Your task to perform on an android device: Go to ESPN.com Image 0: 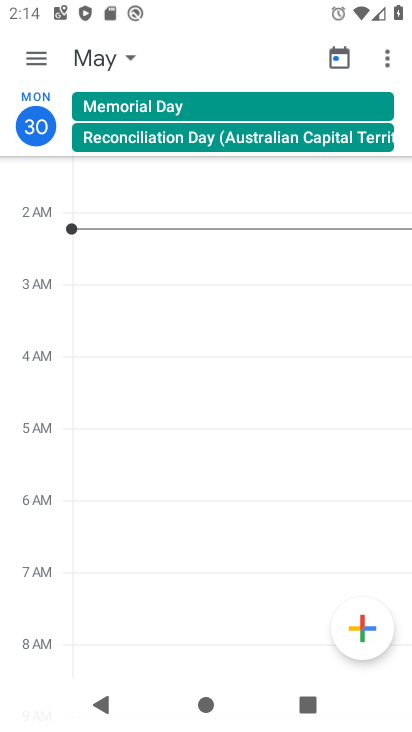
Step 0: press home button
Your task to perform on an android device: Go to ESPN.com Image 1: 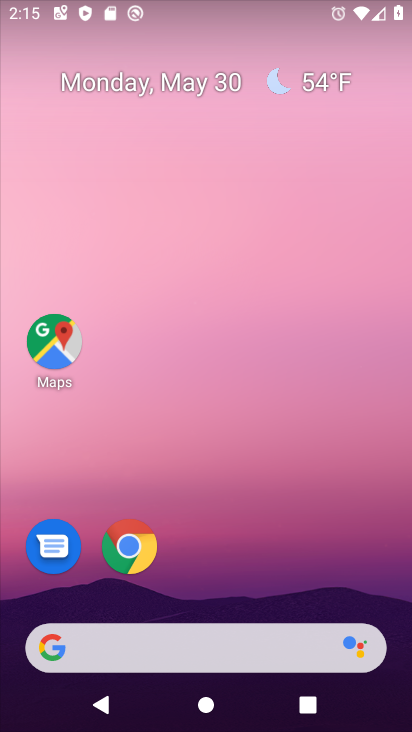
Step 1: click (143, 546)
Your task to perform on an android device: Go to ESPN.com Image 2: 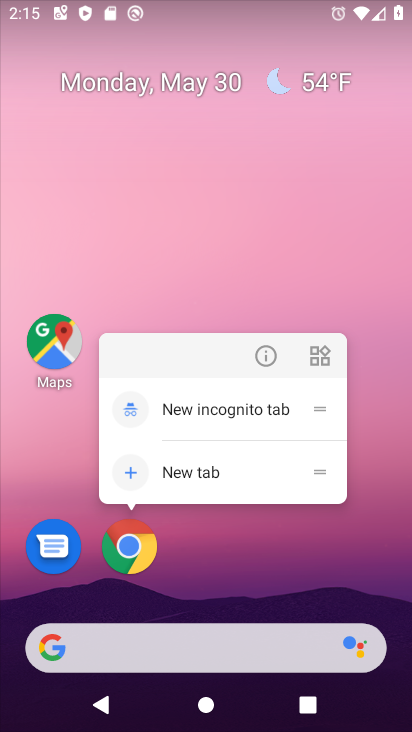
Step 2: click (135, 544)
Your task to perform on an android device: Go to ESPN.com Image 3: 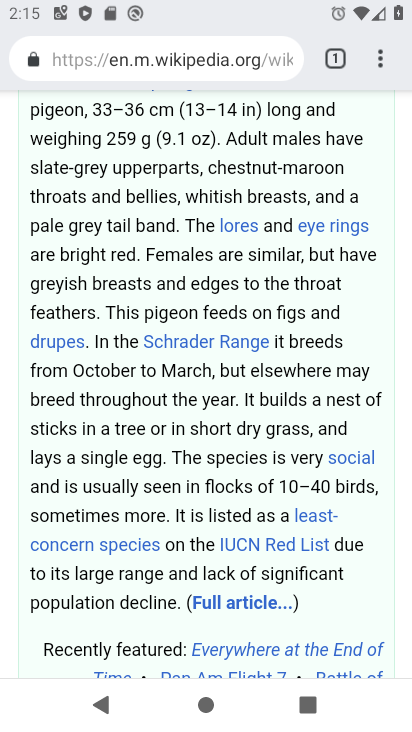
Step 3: drag from (190, 609) to (192, 328)
Your task to perform on an android device: Go to ESPN.com Image 4: 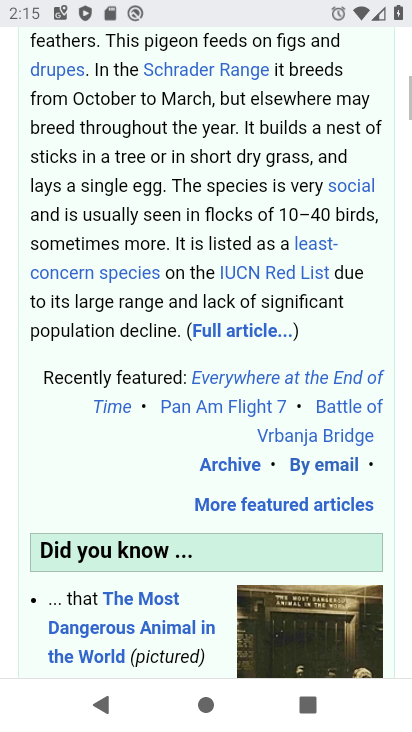
Step 4: drag from (193, 281) to (204, 631)
Your task to perform on an android device: Go to ESPN.com Image 5: 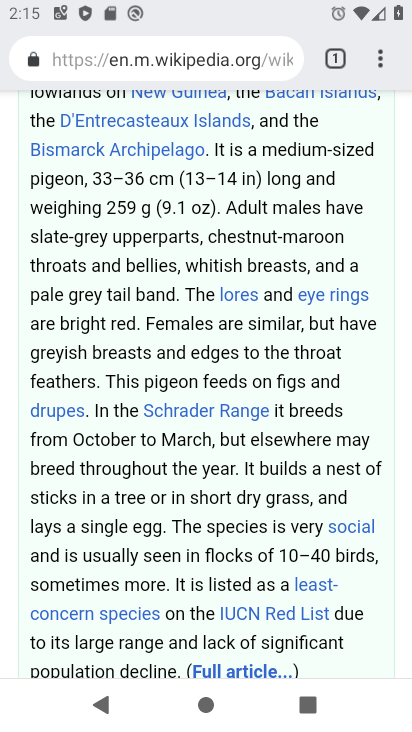
Step 5: click (331, 49)
Your task to perform on an android device: Go to ESPN.com Image 6: 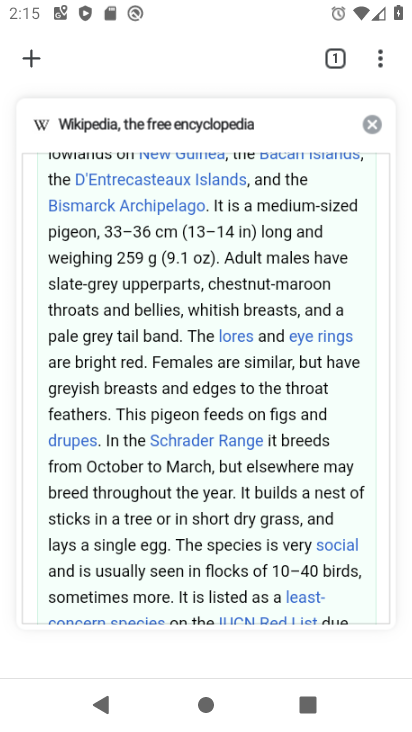
Step 6: click (369, 122)
Your task to perform on an android device: Go to ESPN.com Image 7: 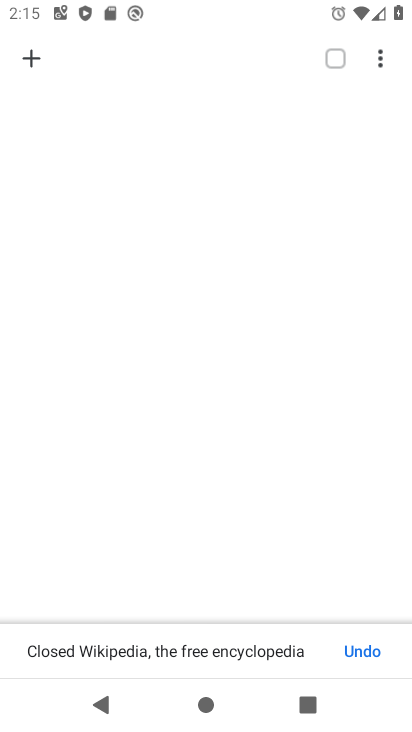
Step 7: click (28, 59)
Your task to perform on an android device: Go to ESPN.com Image 8: 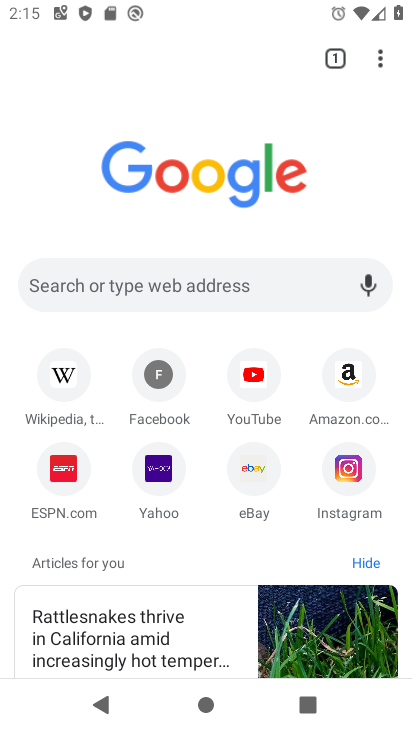
Step 8: click (69, 462)
Your task to perform on an android device: Go to ESPN.com Image 9: 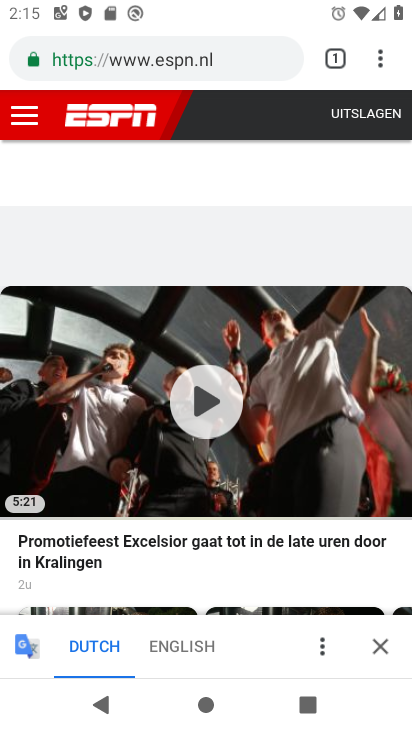
Step 9: task complete